Your task to perform on an android device: Show me popular videos on Youtube Image 0: 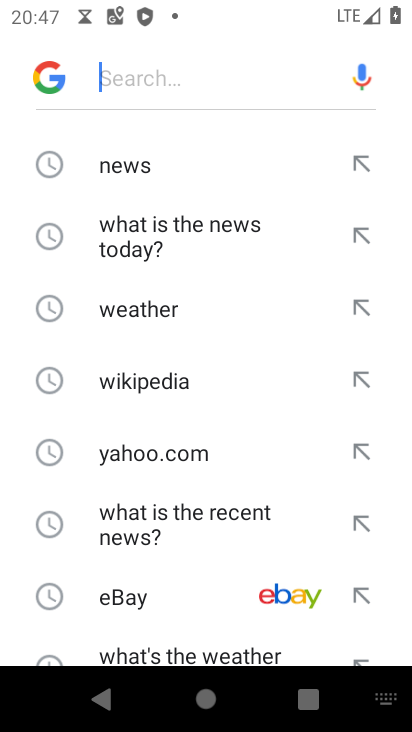
Step 0: press home button
Your task to perform on an android device: Show me popular videos on Youtube Image 1: 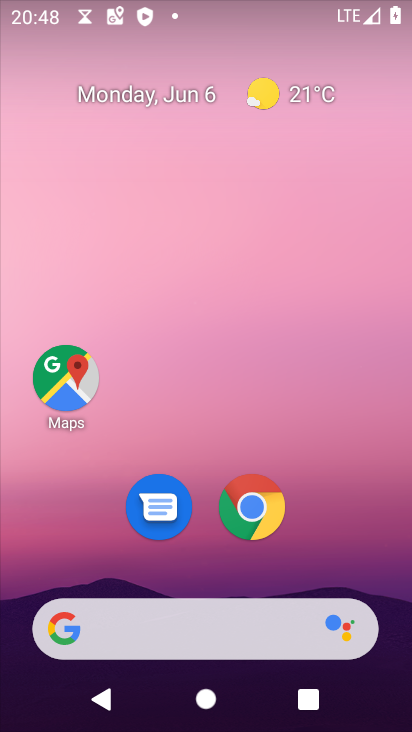
Step 1: drag from (193, 579) to (301, 2)
Your task to perform on an android device: Show me popular videos on Youtube Image 2: 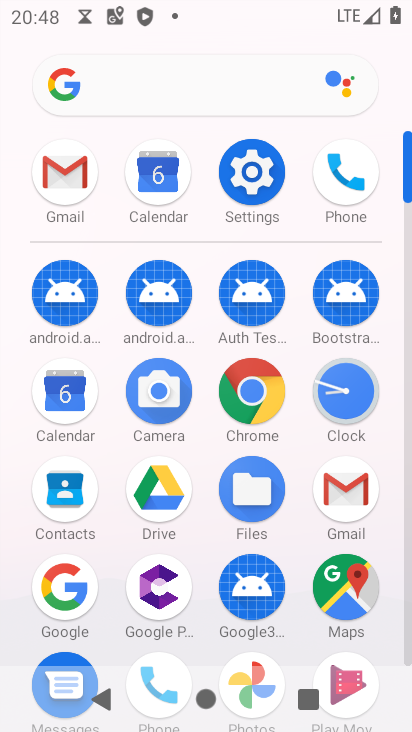
Step 2: drag from (299, 596) to (306, 188)
Your task to perform on an android device: Show me popular videos on Youtube Image 3: 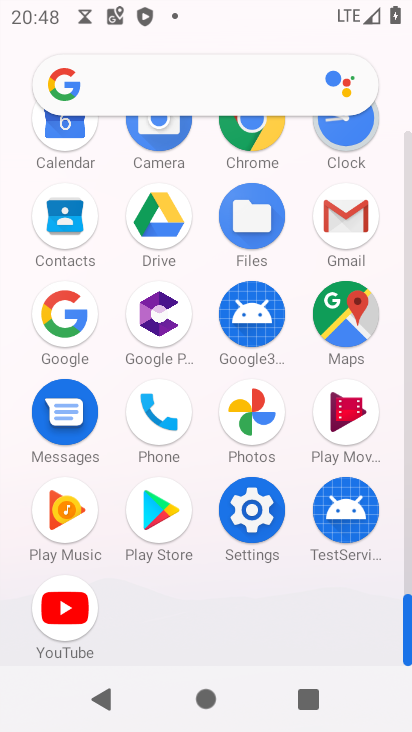
Step 3: click (71, 609)
Your task to perform on an android device: Show me popular videos on Youtube Image 4: 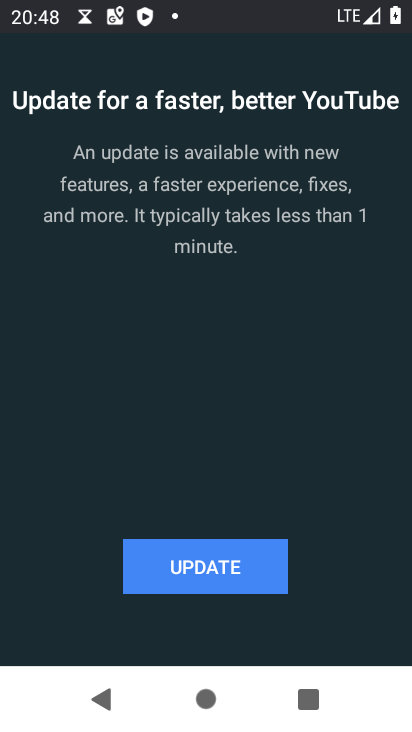
Step 4: click (142, 569)
Your task to perform on an android device: Show me popular videos on Youtube Image 5: 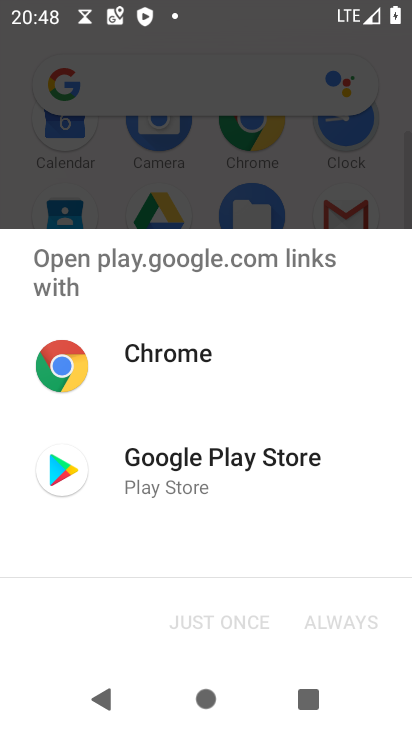
Step 5: click (195, 475)
Your task to perform on an android device: Show me popular videos on Youtube Image 6: 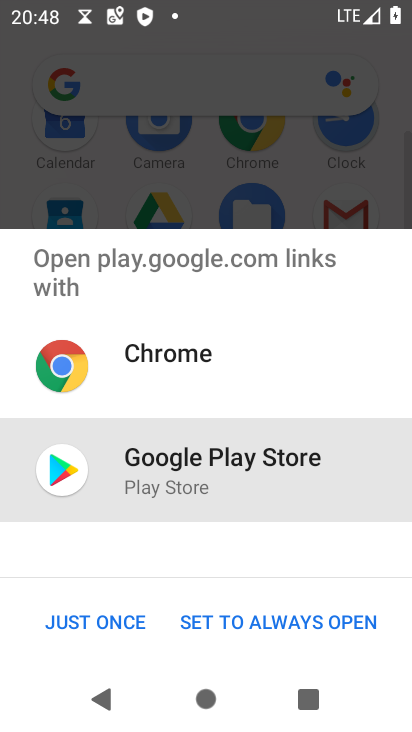
Step 6: click (297, 629)
Your task to perform on an android device: Show me popular videos on Youtube Image 7: 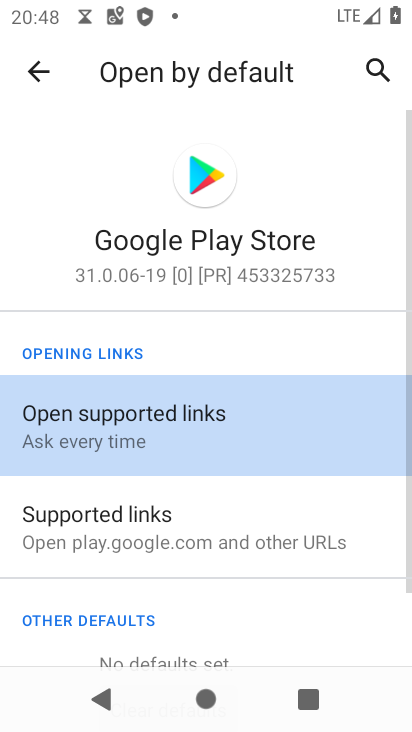
Step 7: click (97, 440)
Your task to perform on an android device: Show me popular videos on Youtube Image 8: 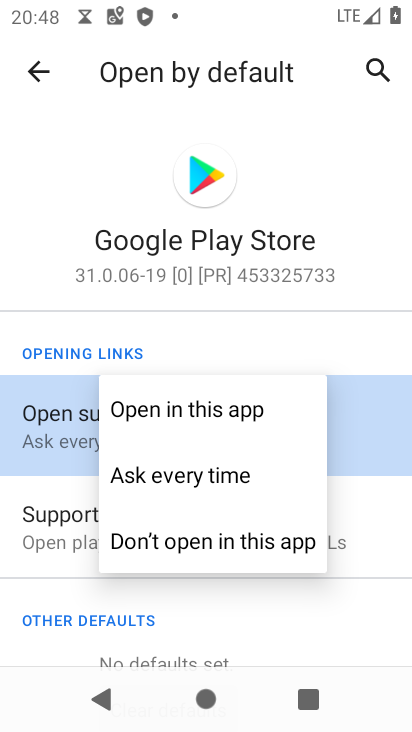
Step 8: click (154, 414)
Your task to perform on an android device: Show me popular videos on Youtube Image 9: 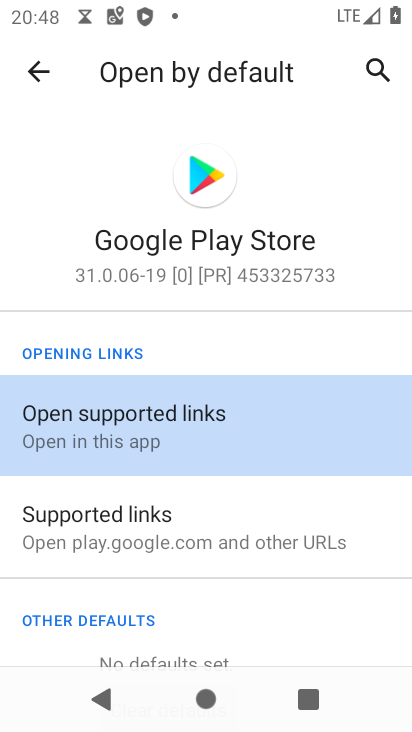
Step 9: click (40, 73)
Your task to perform on an android device: Show me popular videos on Youtube Image 10: 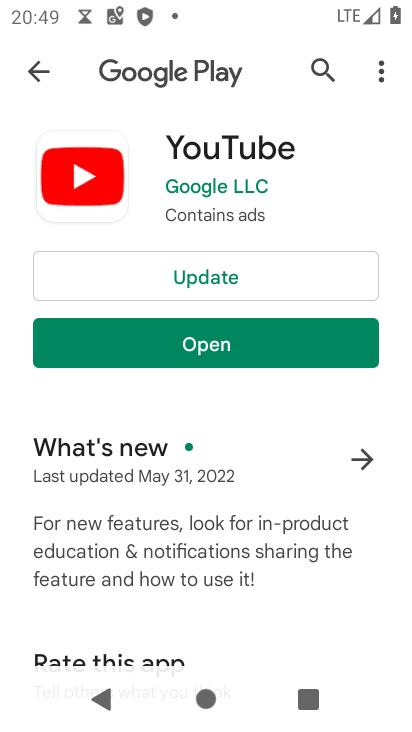
Step 10: click (183, 271)
Your task to perform on an android device: Show me popular videos on Youtube Image 11: 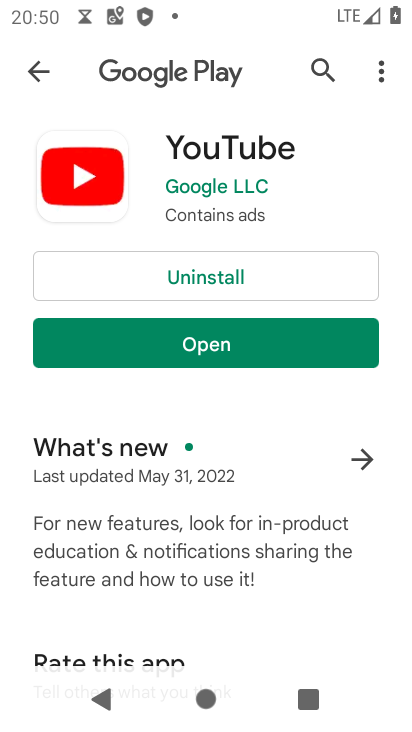
Step 11: click (196, 364)
Your task to perform on an android device: Show me popular videos on Youtube Image 12: 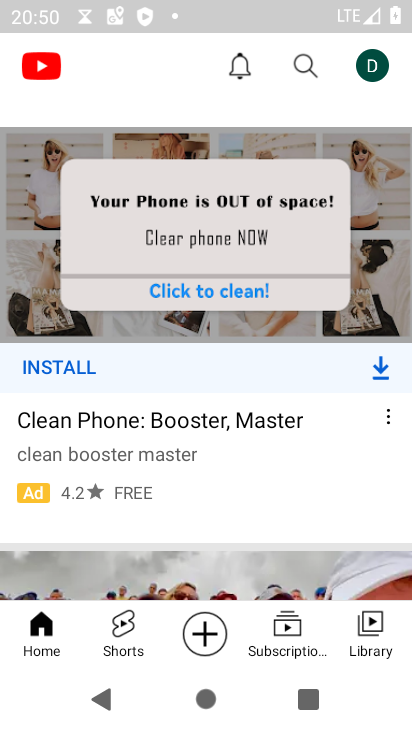
Step 12: task complete